Your task to perform on an android device: empty trash in google photos Image 0: 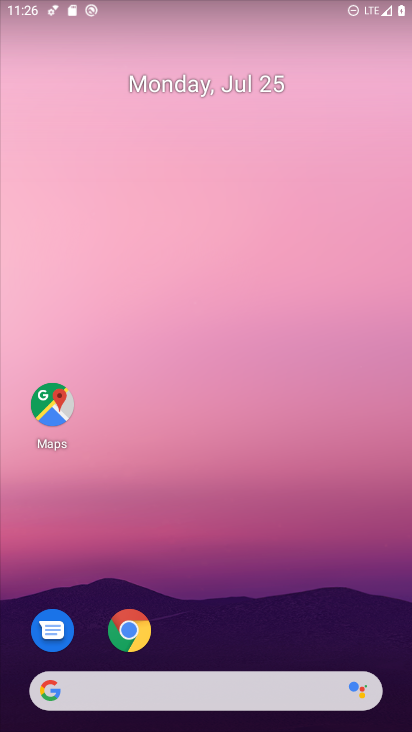
Step 0: drag from (230, 664) to (236, 53)
Your task to perform on an android device: empty trash in google photos Image 1: 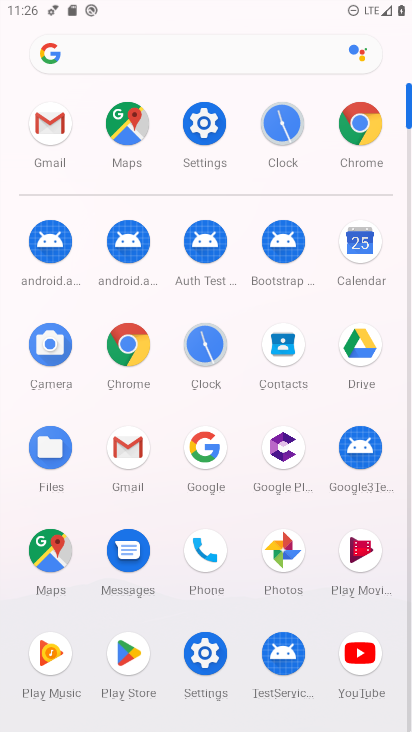
Step 1: click (290, 549)
Your task to perform on an android device: empty trash in google photos Image 2: 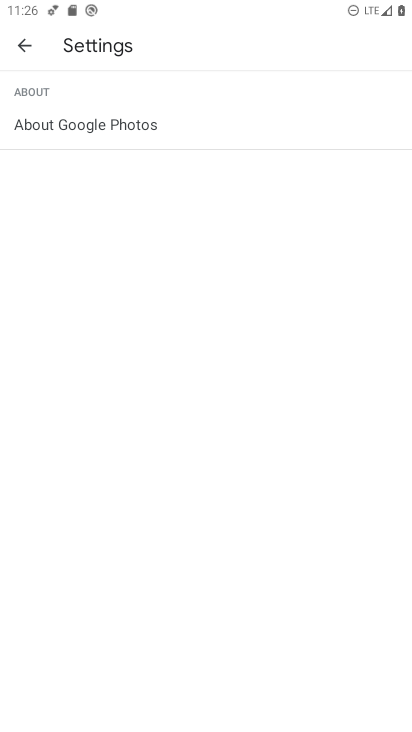
Step 2: click (29, 48)
Your task to perform on an android device: empty trash in google photos Image 3: 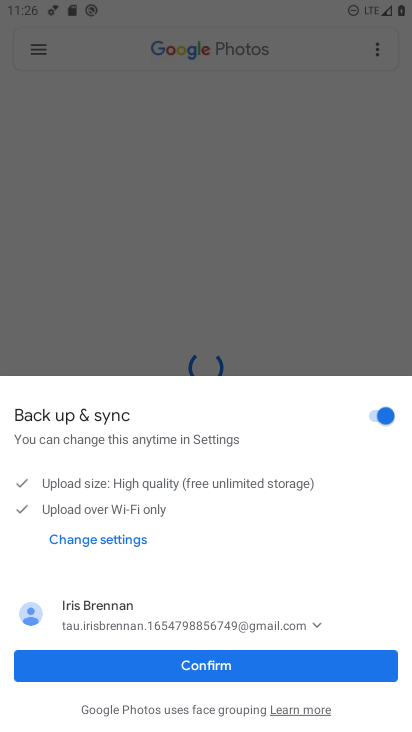
Step 3: click (202, 671)
Your task to perform on an android device: empty trash in google photos Image 4: 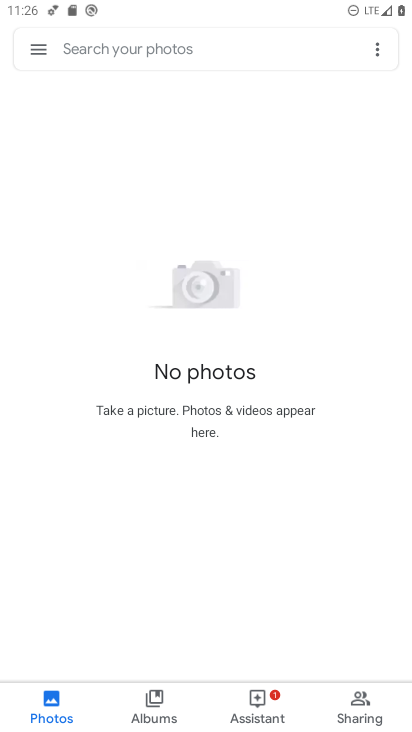
Step 4: click (41, 52)
Your task to perform on an android device: empty trash in google photos Image 5: 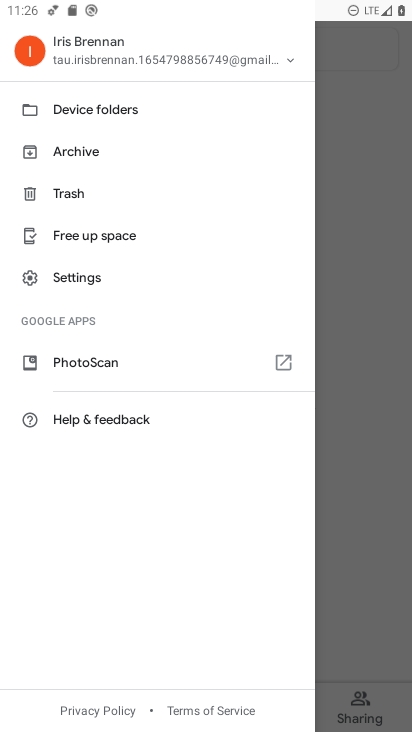
Step 5: click (66, 199)
Your task to perform on an android device: empty trash in google photos Image 6: 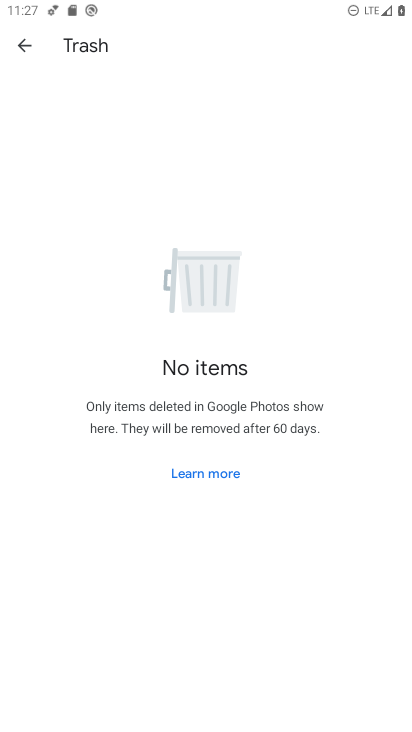
Step 6: task complete